Your task to perform on an android device: toggle wifi Image 0: 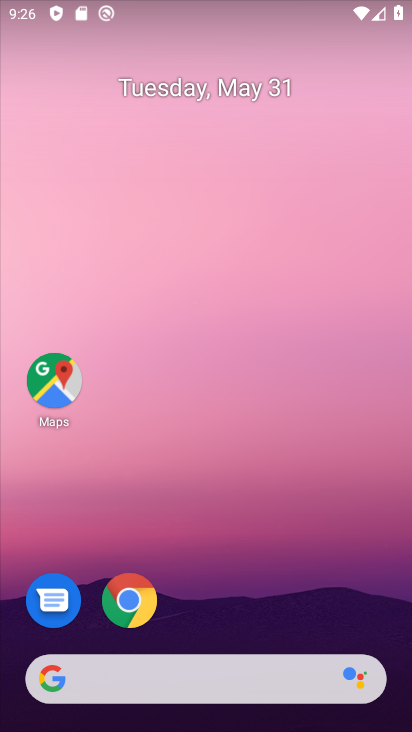
Step 0: drag from (120, 11) to (182, 688)
Your task to perform on an android device: toggle wifi Image 1: 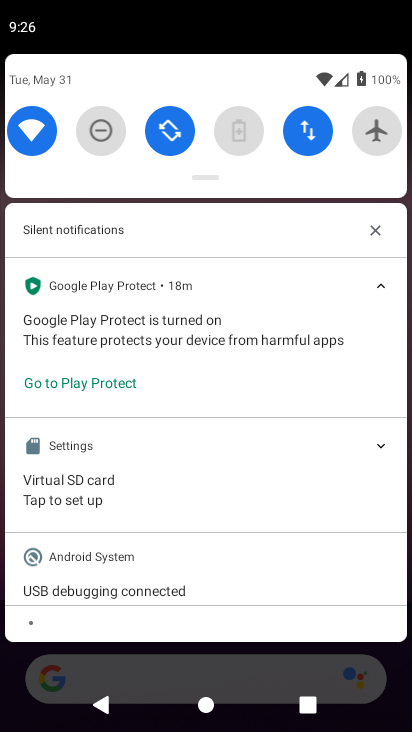
Step 1: click (35, 122)
Your task to perform on an android device: toggle wifi Image 2: 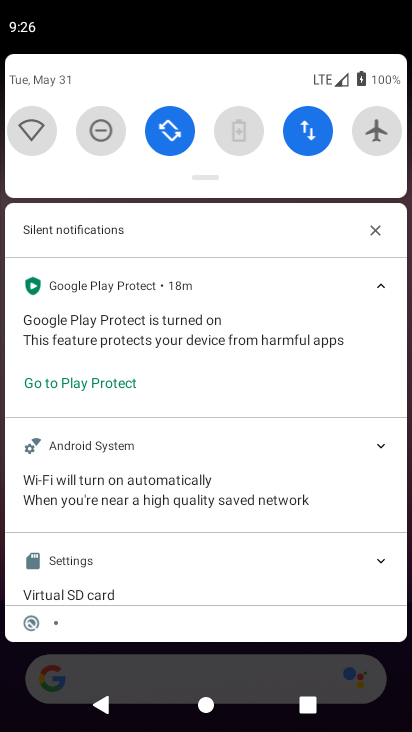
Step 2: task complete